Your task to perform on an android device: Open the map Image 0: 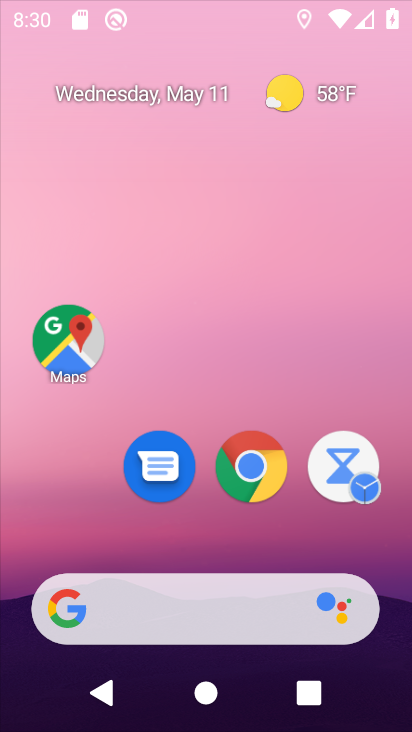
Step 0: drag from (243, 518) to (324, 90)
Your task to perform on an android device: Open the map Image 1: 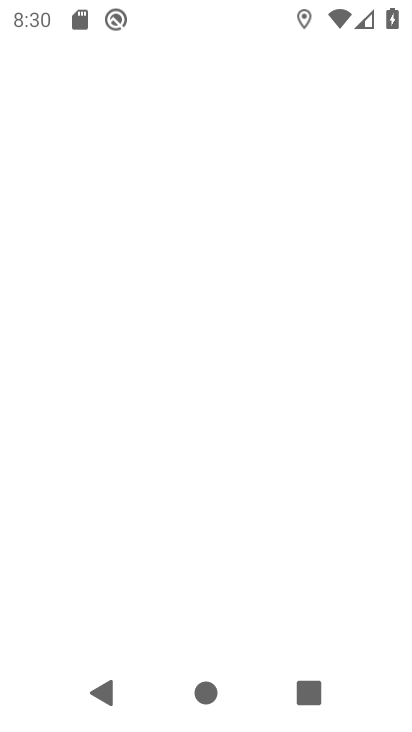
Step 1: press home button
Your task to perform on an android device: Open the map Image 2: 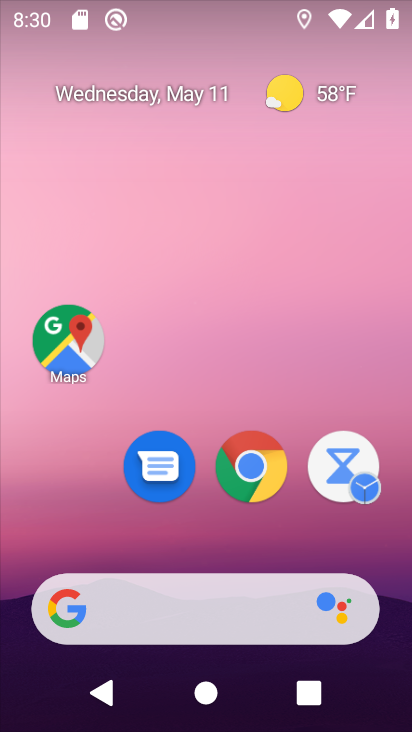
Step 2: drag from (192, 552) to (374, 60)
Your task to perform on an android device: Open the map Image 3: 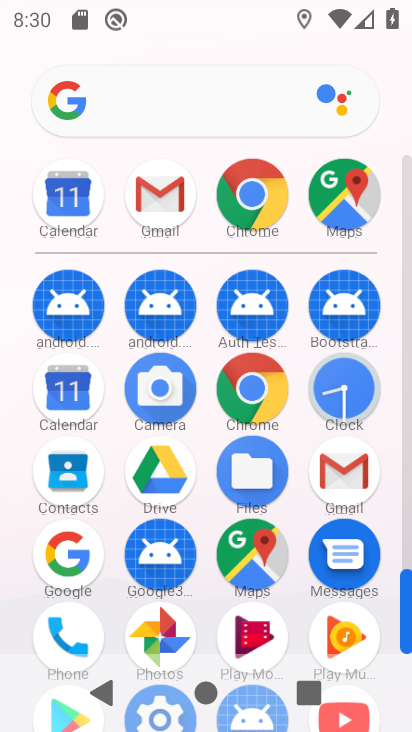
Step 3: click (341, 205)
Your task to perform on an android device: Open the map Image 4: 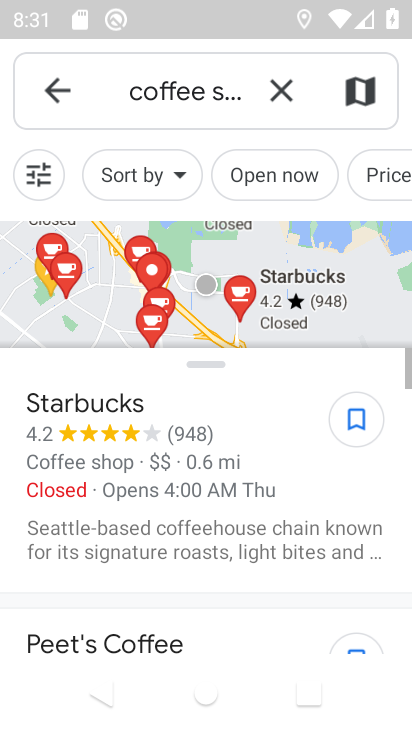
Step 4: click (67, 108)
Your task to perform on an android device: Open the map Image 5: 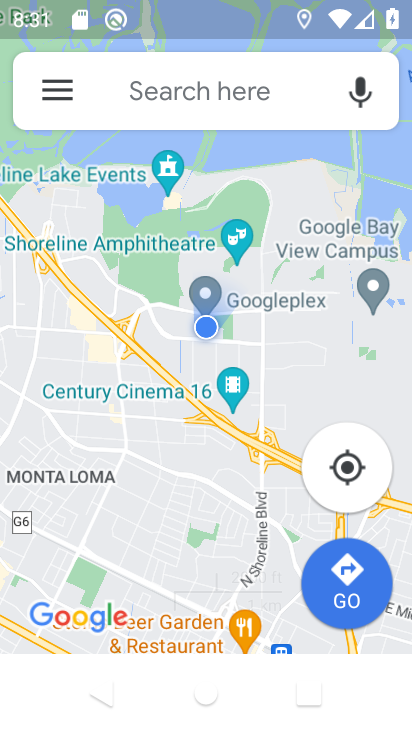
Step 5: task complete